Your task to perform on an android device: Go to accessibility settings Image 0: 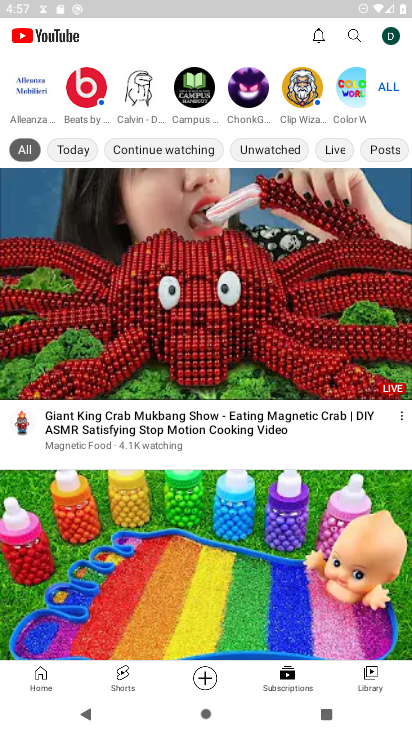
Step 0: press home button
Your task to perform on an android device: Go to accessibility settings Image 1: 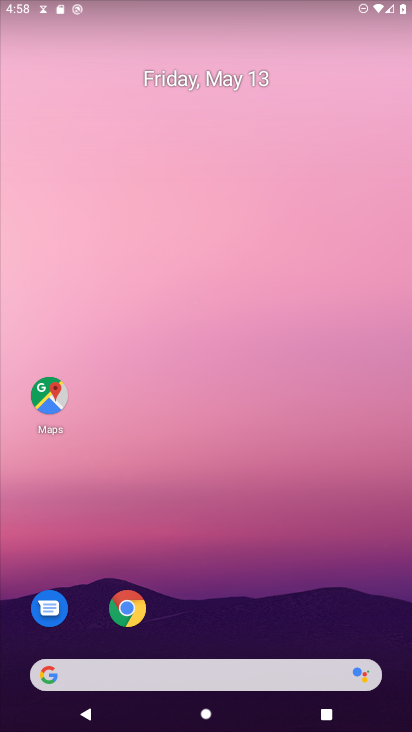
Step 1: drag from (82, 683) to (129, 74)
Your task to perform on an android device: Go to accessibility settings Image 2: 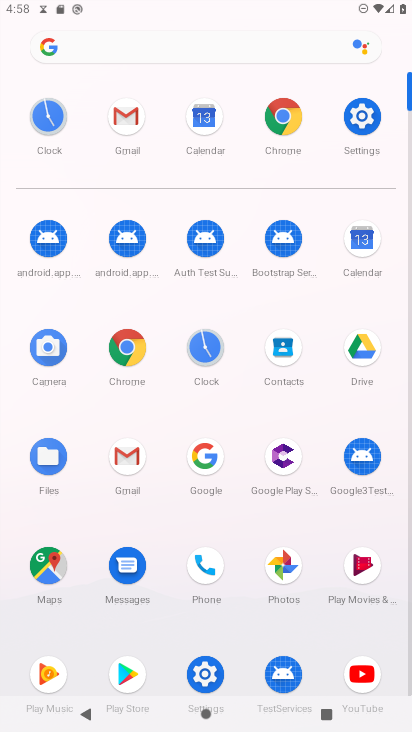
Step 2: click (357, 106)
Your task to perform on an android device: Go to accessibility settings Image 3: 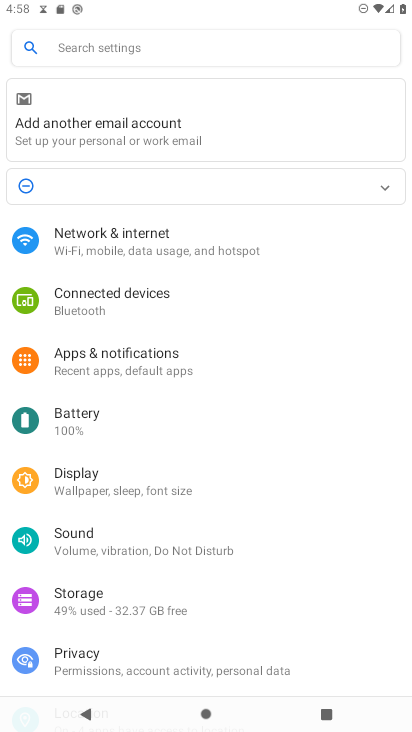
Step 3: drag from (161, 639) to (171, 43)
Your task to perform on an android device: Go to accessibility settings Image 4: 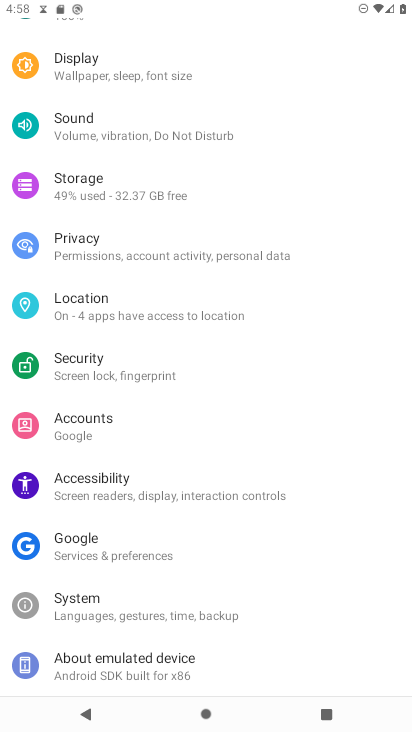
Step 4: click (117, 494)
Your task to perform on an android device: Go to accessibility settings Image 5: 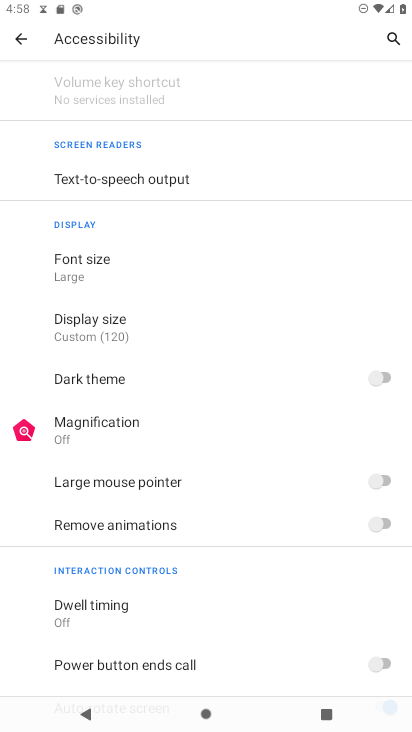
Step 5: task complete